Your task to perform on an android device: Show me popular videos on Youtube Image 0: 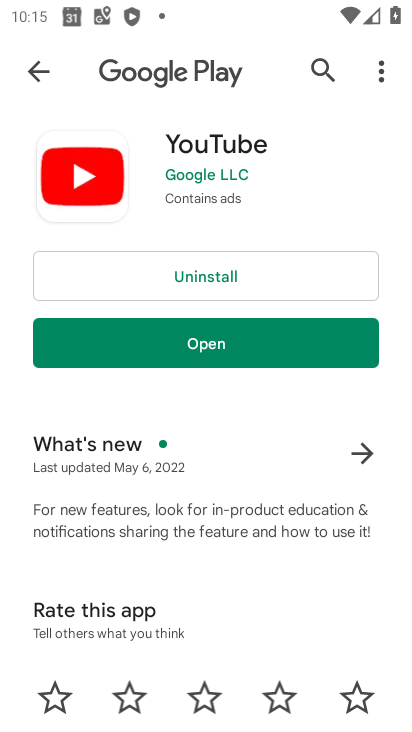
Step 0: press home button
Your task to perform on an android device: Show me popular videos on Youtube Image 1: 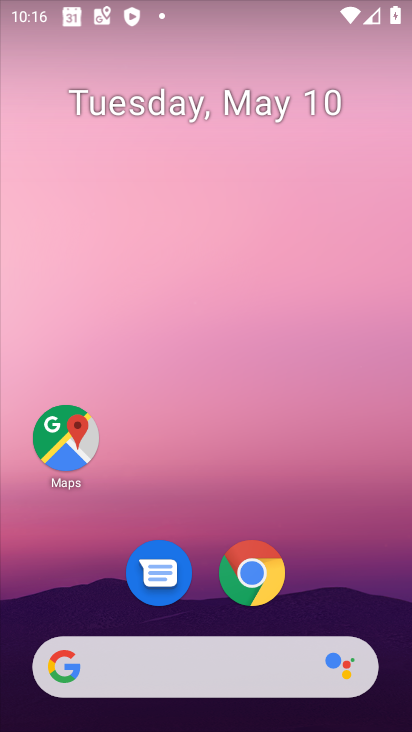
Step 1: drag from (312, 593) to (226, 5)
Your task to perform on an android device: Show me popular videos on Youtube Image 2: 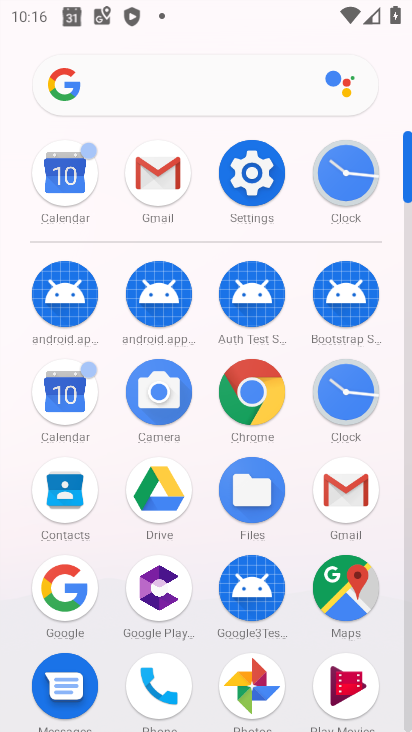
Step 2: click (405, 656)
Your task to perform on an android device: Show me popular videos on Youtube Image 3: 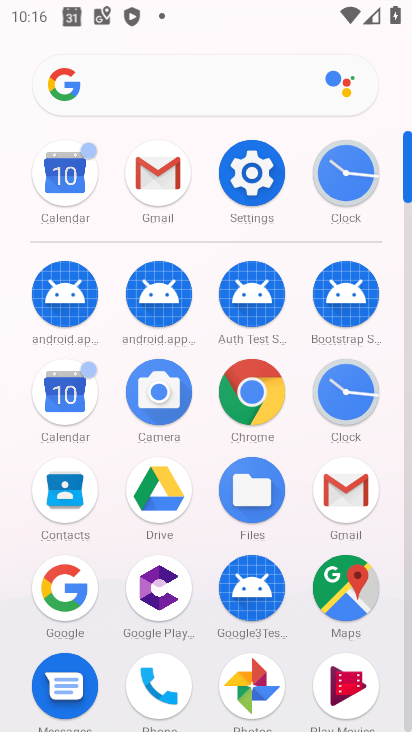
Step 3: click (405, 656)
Your task to perform on an android device: Show me popular videos on Youtube Image 4: 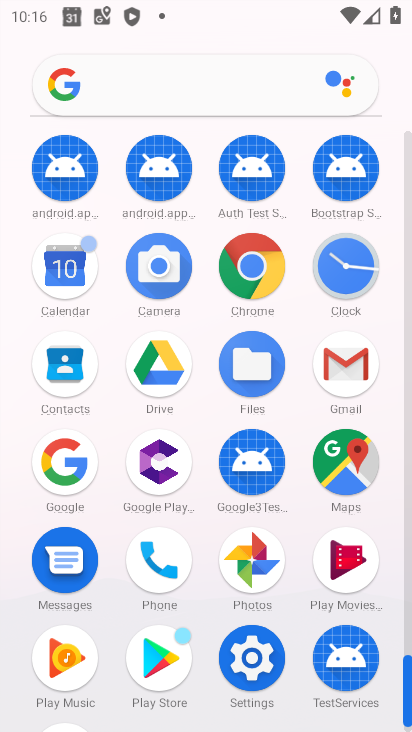
Step 4: click (405, 656)
Your task to perform on an android device: Show me popular videos on Youtube Image 5: 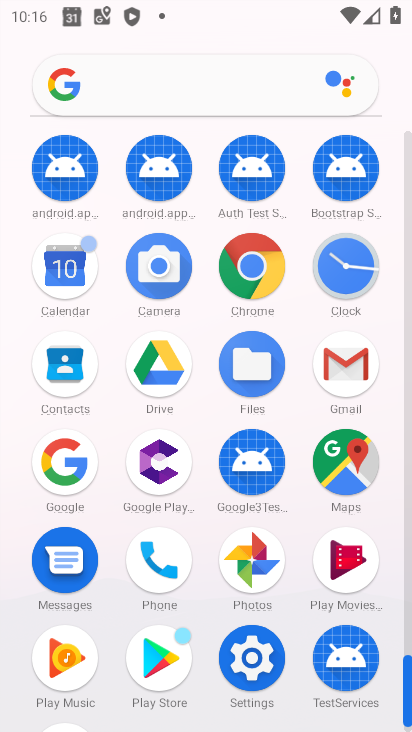
Step 5: click (403, 709)
Your task to perform on an android device: Show me popular videos on Youtube Image 6: 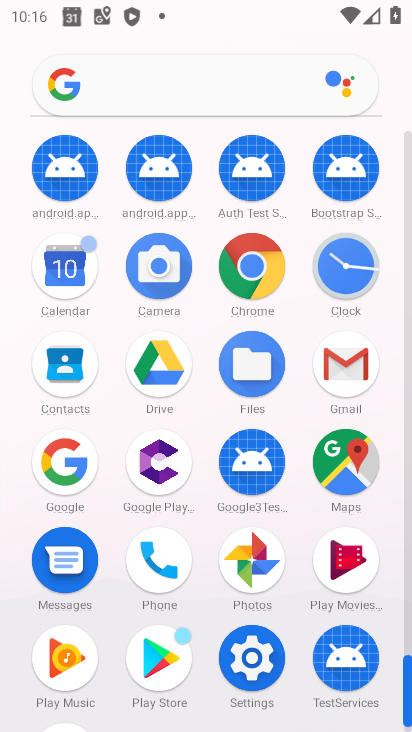
Step 6: drag from (403, 709) to (254, 716)
Your task to perform on an android device: Show me popular videos on Youtube Image 7: 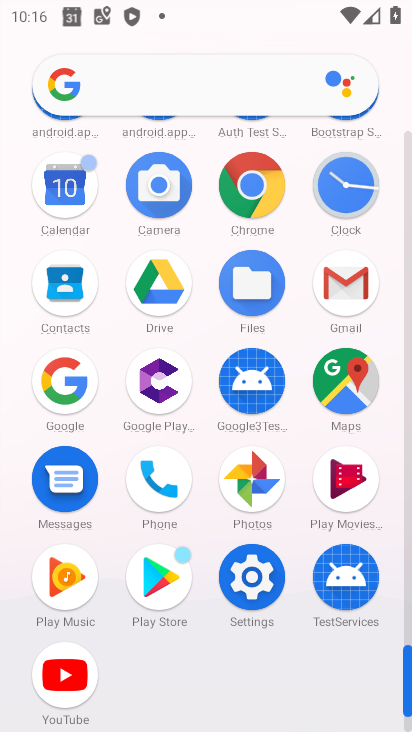
Step 7: click (66, 666)
Your task to perform on an android device: Show me popular videos on Youtube Image 8: 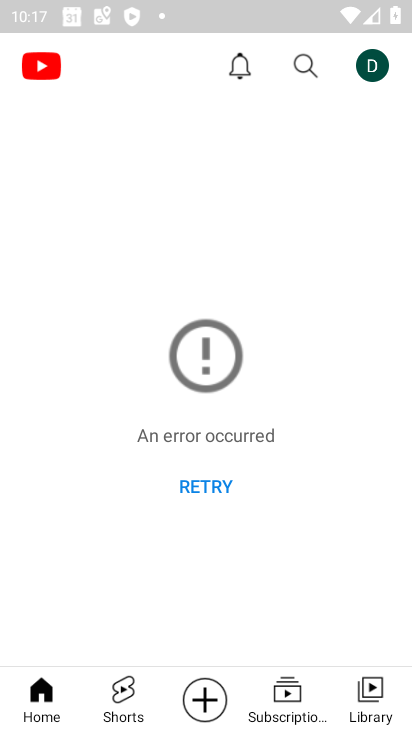
Step 8: click (107, 691)
Your task to perform on an android device: Show me popular videos on Youtube Image 9: 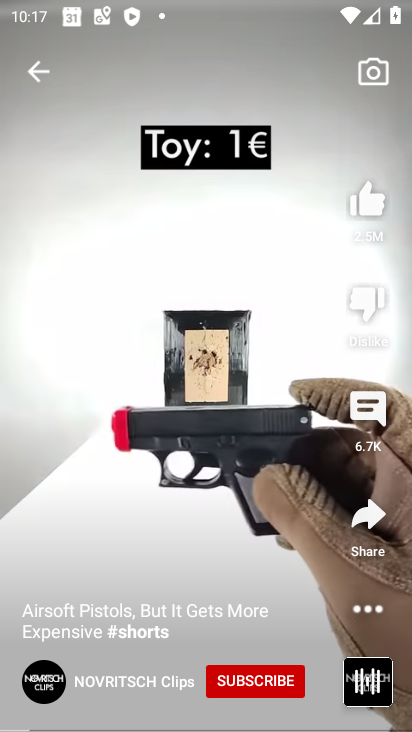
Step 9: task complete